Your task to perform on an android device: star an email in the gmail app Image 0: 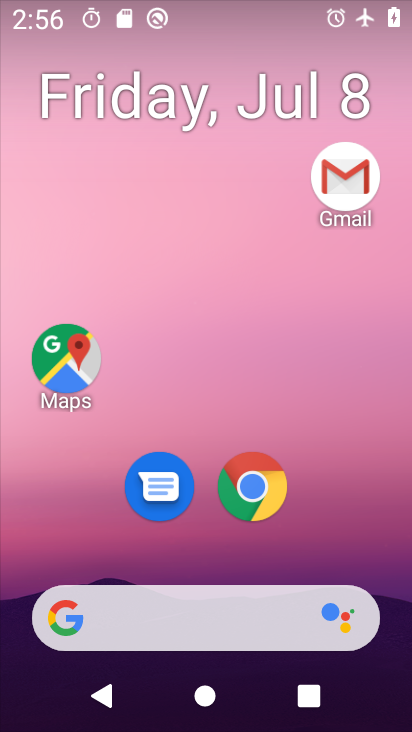
Step 0: drag from (342, 533) to (353, 176)
Your task to perform on an android device: star an email in the gmail app Image 1: 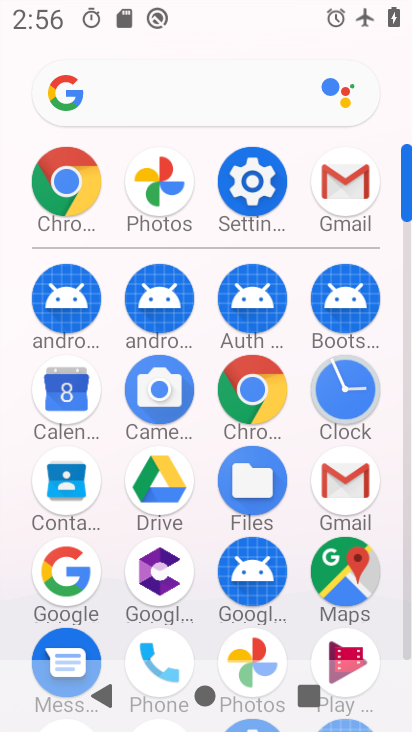
Step 1: click (355, 487)
Your task to perform on an android device: star an email in the gmail app Image 2: 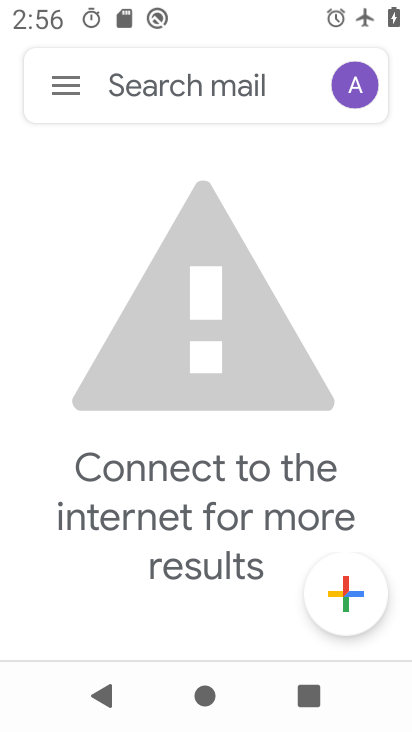
Step 2: task complete